Your task to perform on an android device: Open the calendar and show me this week's events? Image 0: 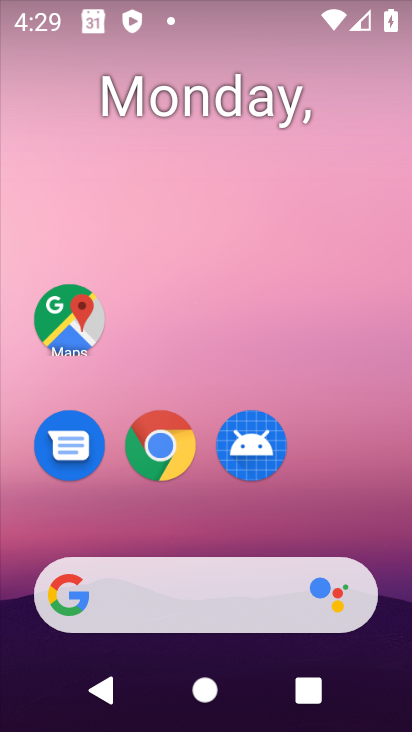
Step 0: drag from (328, 483) to (307, 53)
Your task to perform on an android device: Open the calendar and show me this week's events? Image 1: 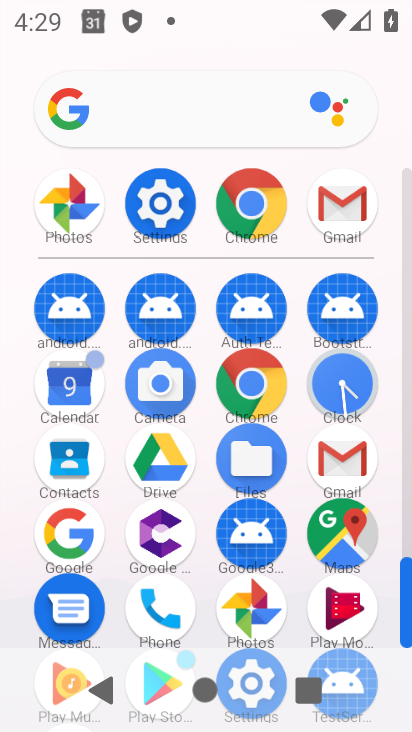
Step 1: click (78, 450)
Your task to perform on an android device: Open the calendar and show me this week's events? Image 2: 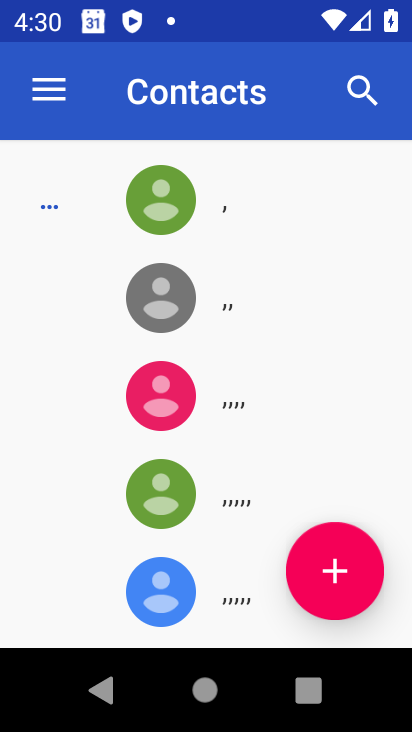
Step 2: press home button
Your task to perform on an android device: Open the calendar and show me this week's events? Image 3: 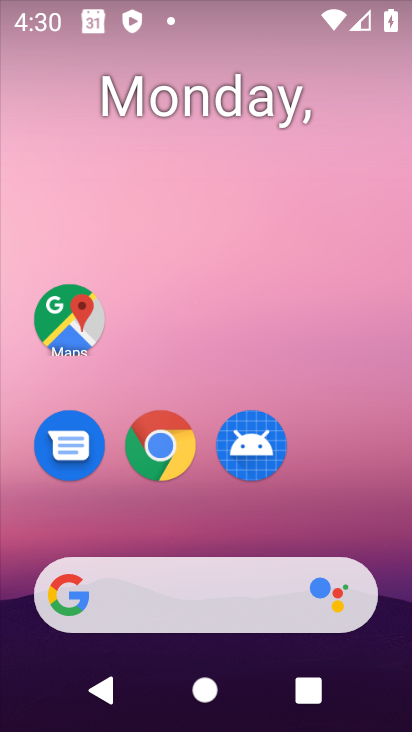
Step 3: drag from (205, 330) to (199, 12)
Your task to perform on an android device: Open the calendar and show me this week's events? Image 4: 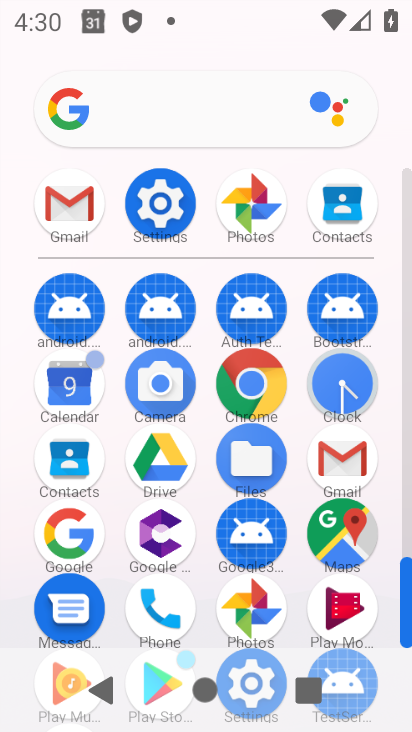
Step 4: click (63, 392)
Your task to perform on an android device: Open the calendar and show me this week's events? Image 5: 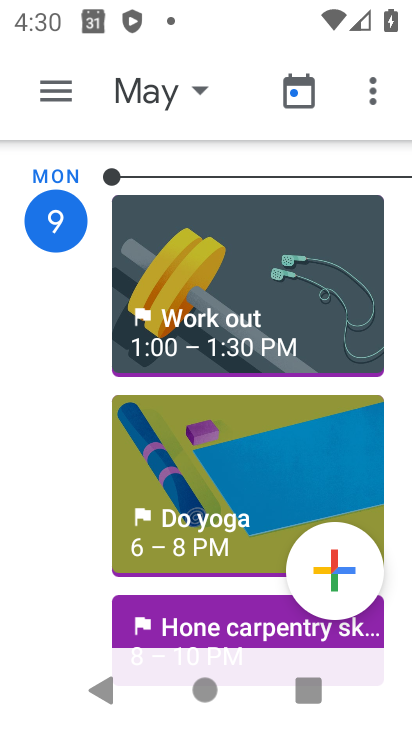
Step 5: click (198, 94)
Your task to perform on an android device: Open the calendar and show me this week's events? Image 6: 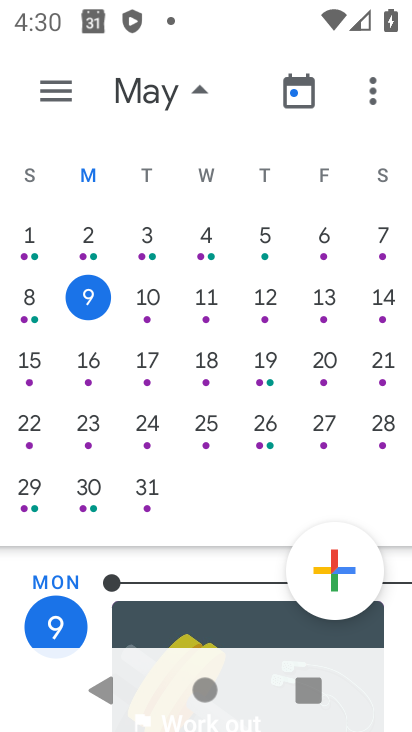
Step 6: click (147, 307)
Your task to perform on an android device: Open the calendar and show me this week's events? Image 7: 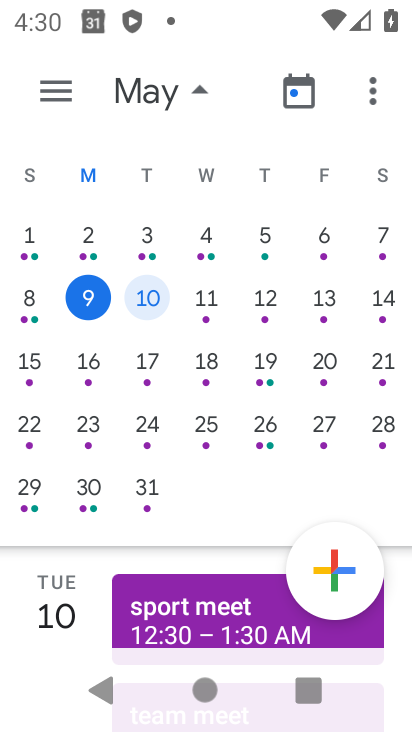
Step 7: task complete